Your task to perform on an android device: Go to Maps Image 0: 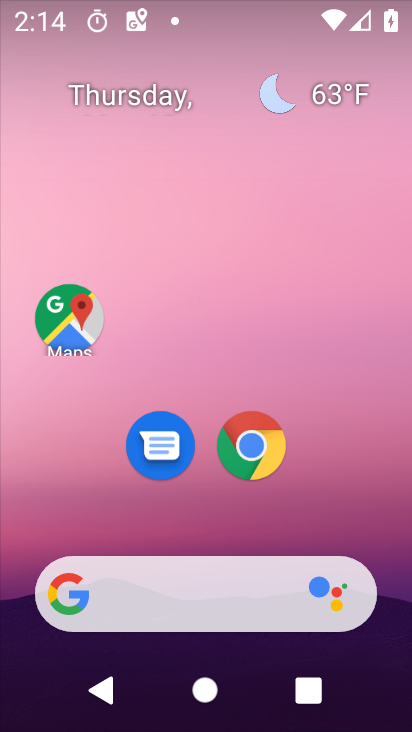
Step 0: drag from (177, 591) to (202, 151)
Your task to perform on an android device: Go to Maps Image 1: 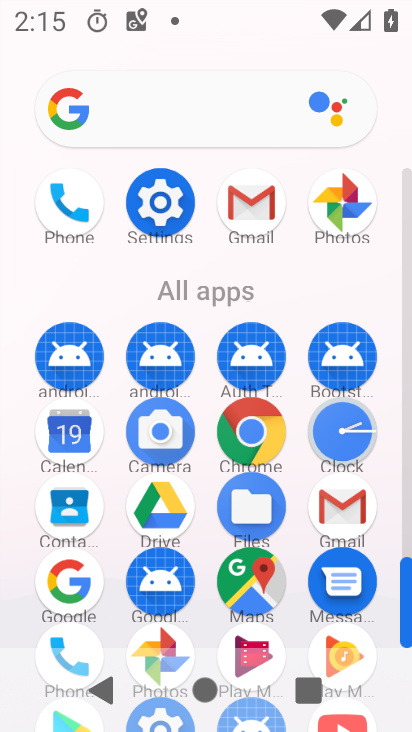
Step 1: click (257, 588)
Your task to perform on an android device: Go to Maps Image 2: 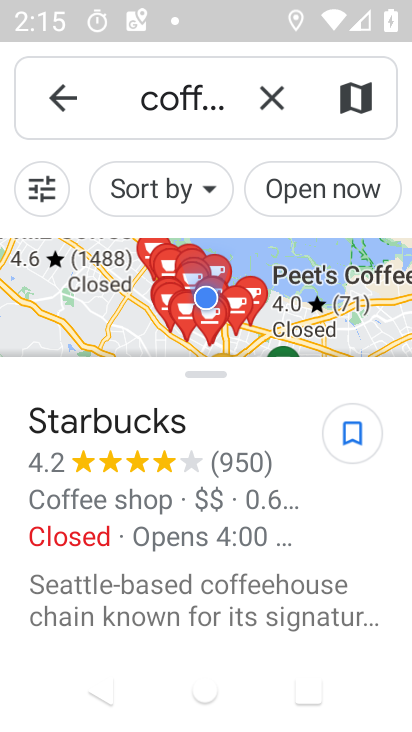
Step 2: task complete